Your task to perform on an android device: Go to Android settings Image 0: 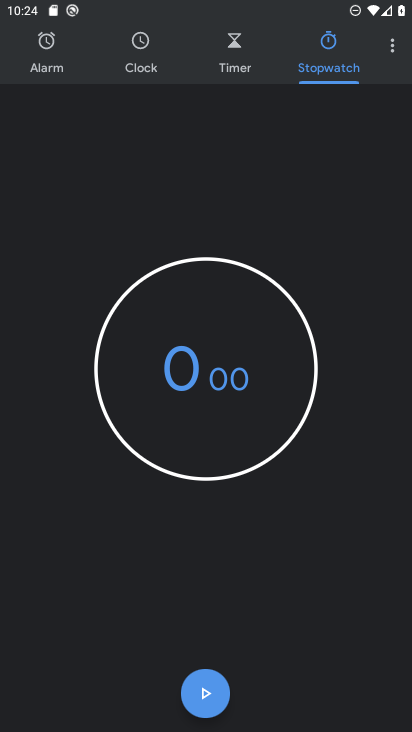
Step 0: press home button
Your task to perform on an android device: Go to Android settings Image 1: 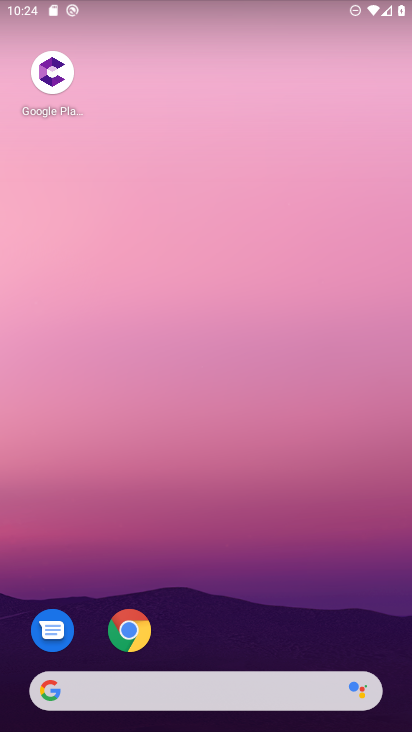
Step 1: drag from (213, 692) to (188, 203)
Your task to perform on an android device: Go to Android settings Image 2: 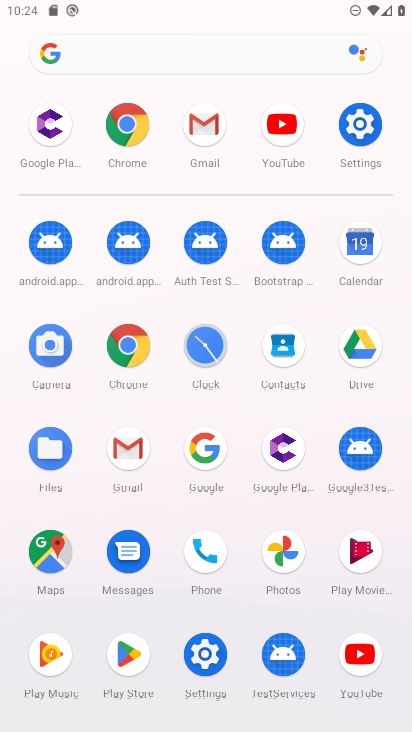
Step 2: click (358, 125)
Your task to perform on an android device: Go to Android settings Image 3: 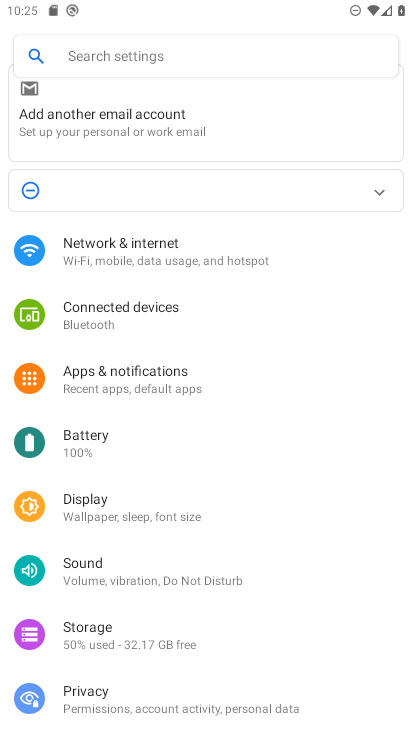
Step 3: task complete